Your task to perform on an android device: Open internet settings Image 0: 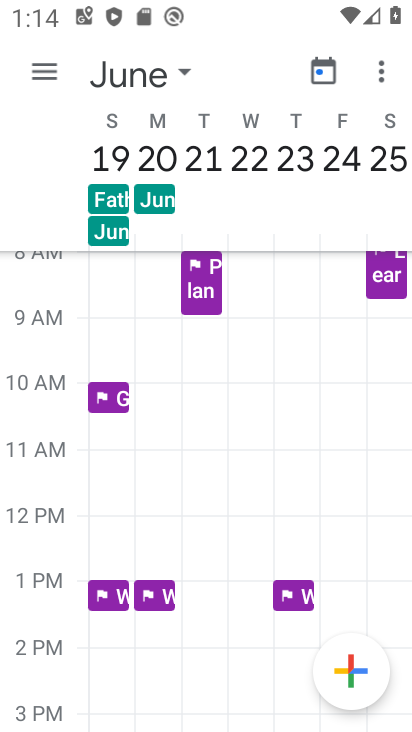
Step 0: press back button
Your task to perform on an android device: Open internet settings Image 1: 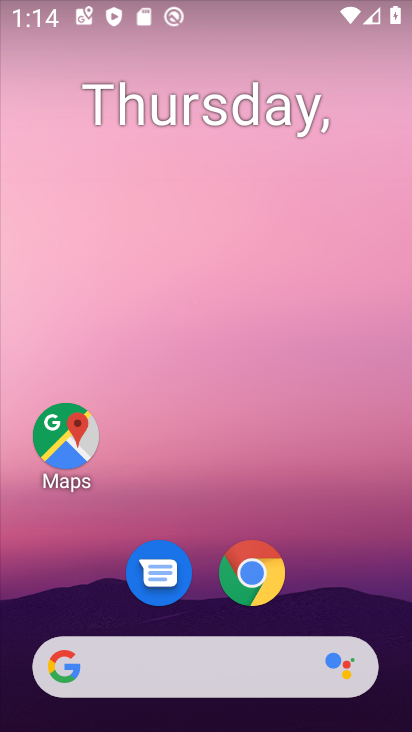
Step 1: drag from (351, 584) to (264, 0)
Your task to perform on an android device: Open internet settings Image 2: 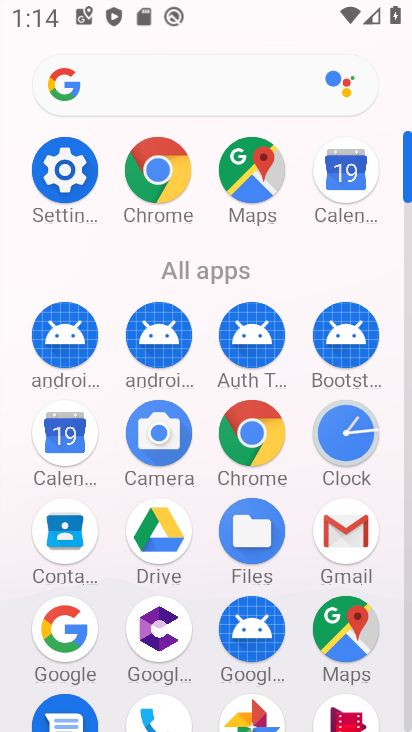
Step 2: click (64, 162)
Your task to perform on an android device: Open internet settings Image 3: 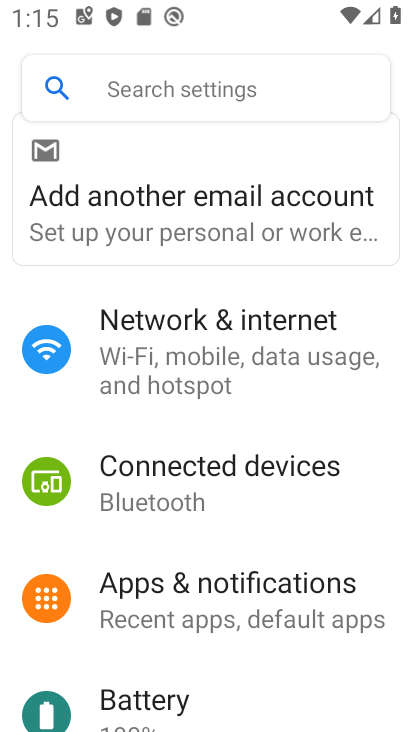
Step 3: click (183, 368)
Your task to perform on an android device: Open internet settings Image 4: 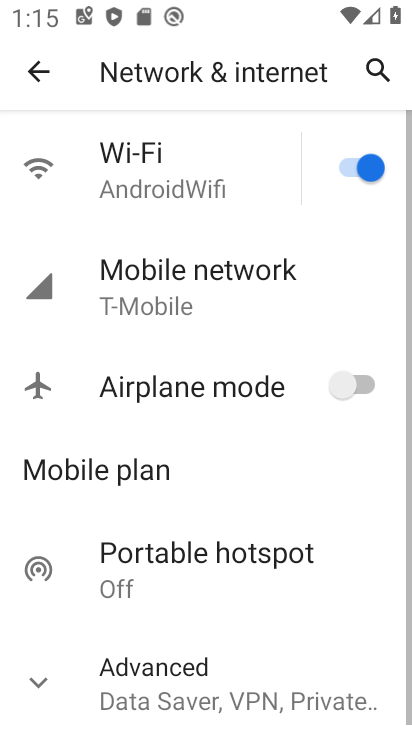
Step 4: click (175, 171)
Your task to perform on an android device: Open internet settings Image 5: 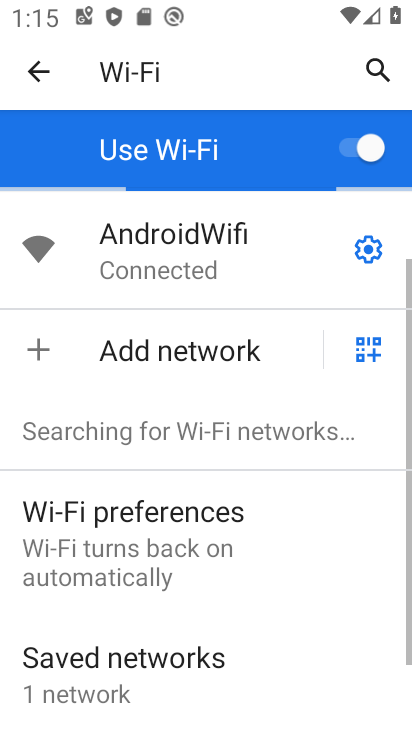
Step 5: task complete